Your task to perform on an android device: install app "Life360: Find Family & Friends" Image 0: 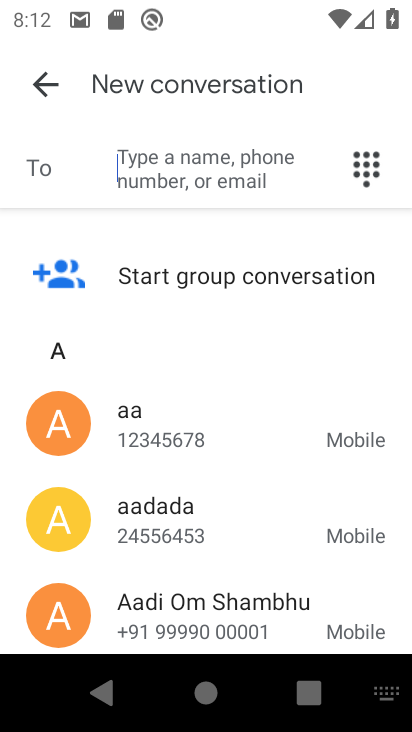
Step 0: press home button
Your task to perform on an android device: install app "Life360: Find Family & Friends" Image 1: 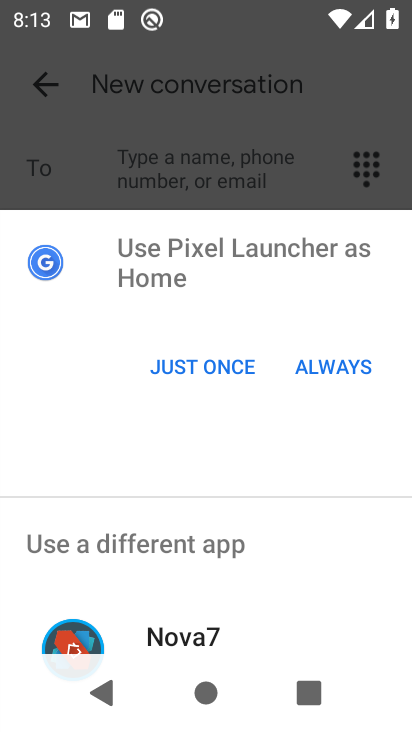
Step 1: click (325, 365)
Your task to perform on an android device: install app "Life360: Find Family & Friends" Image 2: 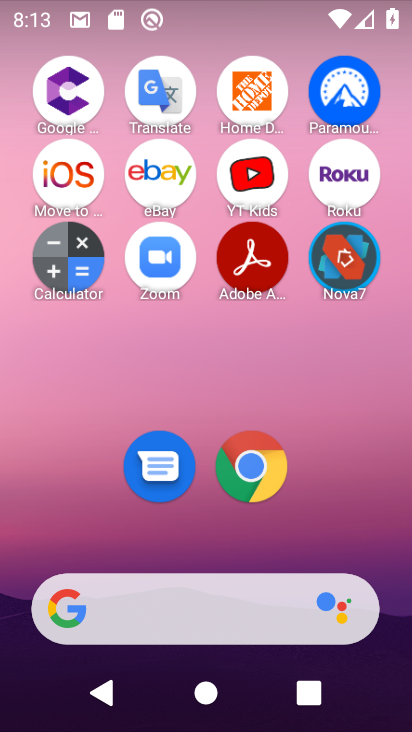
Step 2: drag from (219, 573) to (294, 0)
Your task to perform on an android device: install app "Life360: Find Family & Friends" Image 3: 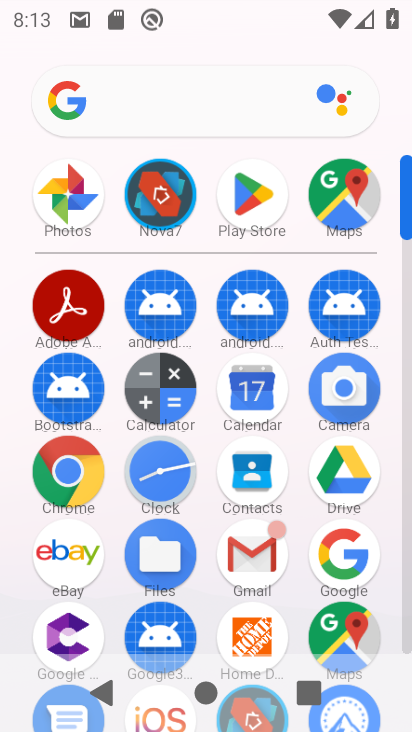
Step 3: click (254, 193)
Your task to perform on an android device: install app "Life360: Find Family & Friends" Image 4: 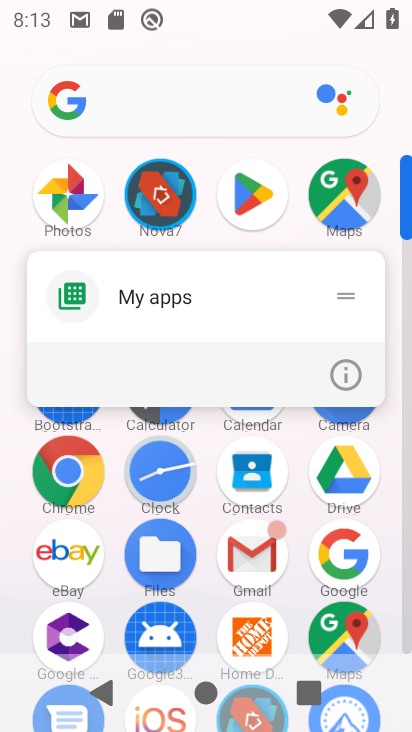
Step 4: click (240, 212)
Your task to perform on an android device: install app "Life360: Find Family & Friends" Image 5: 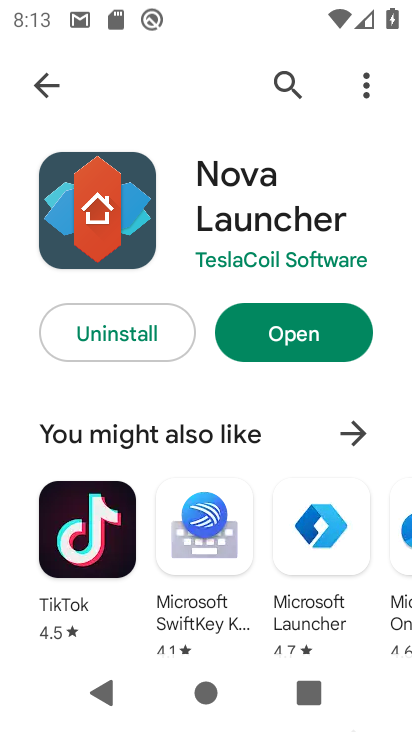
Step 5: click (38, 69)
Your task to perform on an android device: install app "Life360: Find Family & Friends" Image 6: 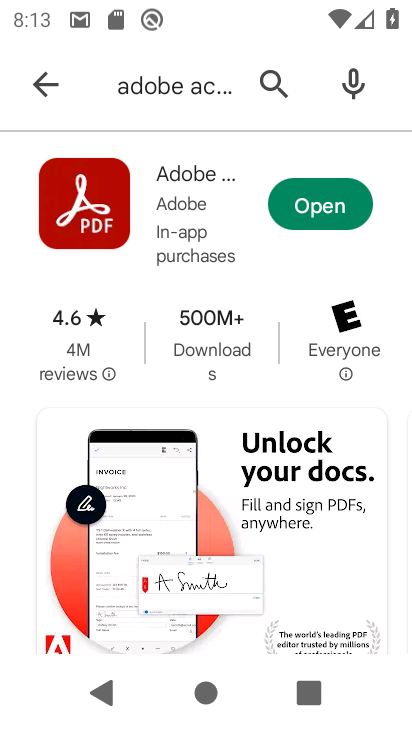
Step 6: click (146, 90)
Your task to perform on an android device: install app "Life360: Find Family & Friends" Image 7: 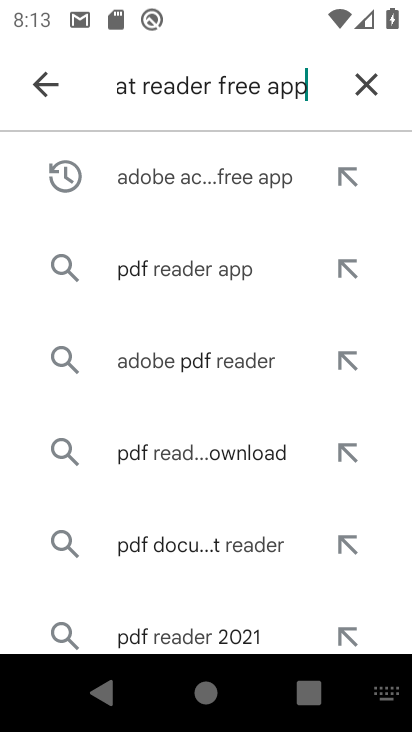
Step 7: click (362, 81)
Your task to perform on an android device: install app "Life360: Find Family & Friends" Image 8: 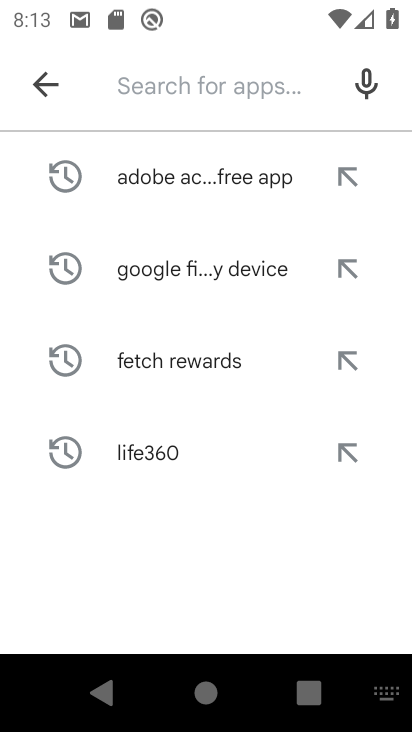
Step 8: type "life360"
Your task to perform on an android device: install app "Life360: Find Family & Friends" Image 9: 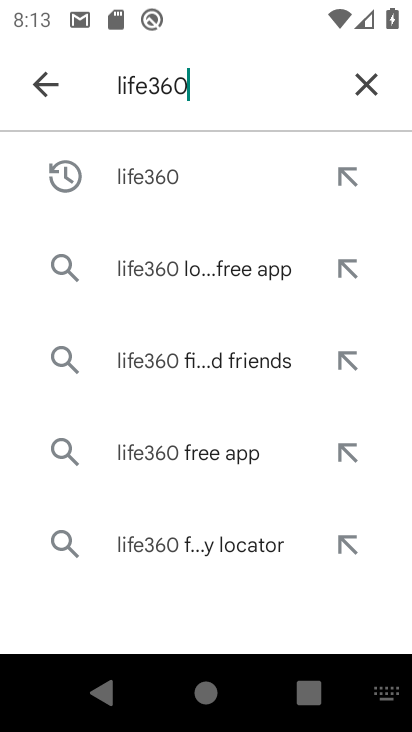
Step 9: click (182, 175)
Your task to perform on an android device: install app "Life360: Find Family & Friends" Image 10: 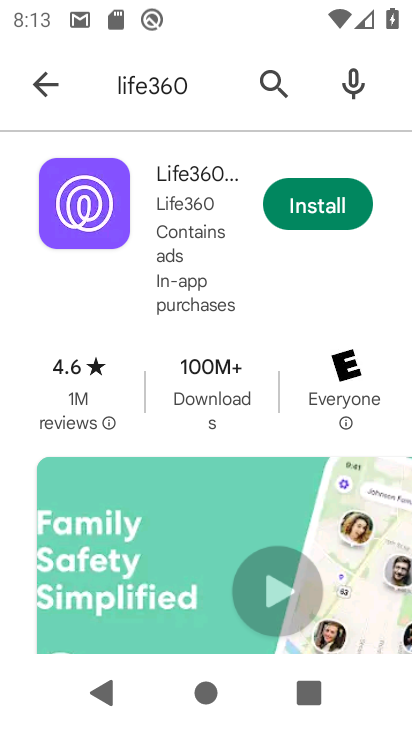
Step 10: click (307, 204)
Your task to perform on an android device: install app "Life360: Find Family & Friends" Image 11: 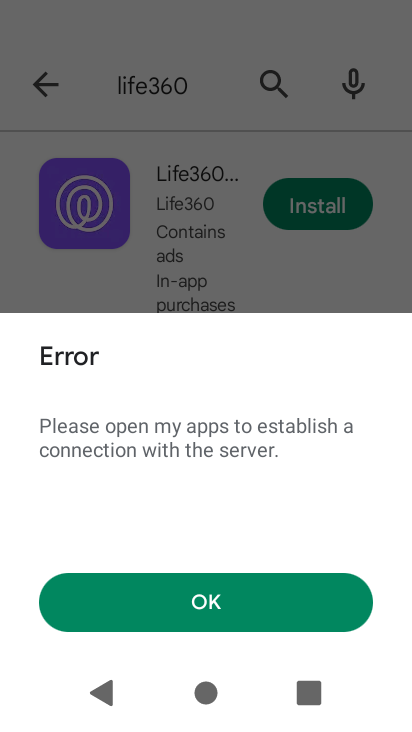
Step 11: click (240, 602)
Your task to perform on an android device: install app "Life360: Find Family & Friends" Image 12: 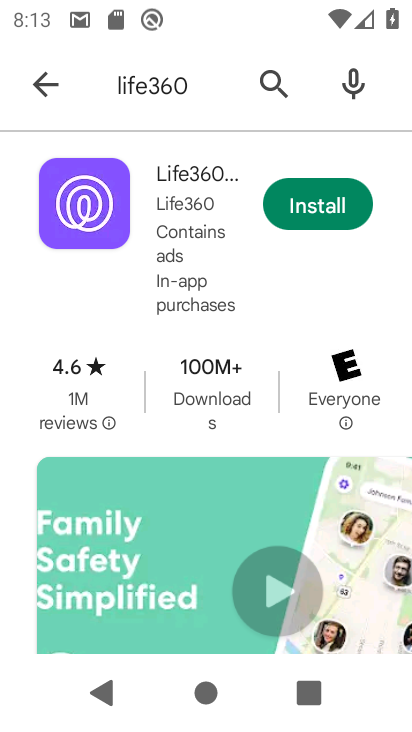
Step 12: click (96, 204)
Your task to perform on an android device: install app "Life360: Find Family & Friends" Image 13: 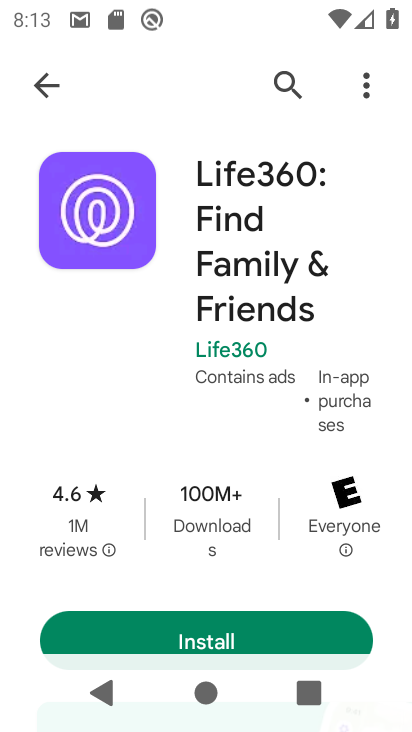
Step 13: click (245, 618)
Your task to perform on an android device: install app "Life360: Find Family & Friends" Image 14: 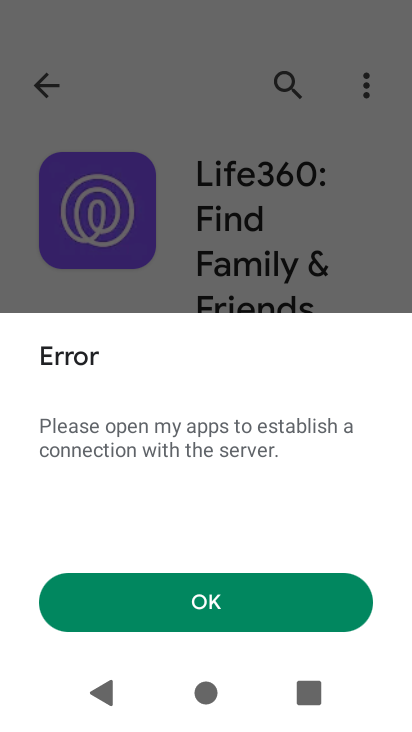
Step 14: click (244, 604)
Your task to perform on an android device: install app "Life360: Find Family & Friends" Image 15: 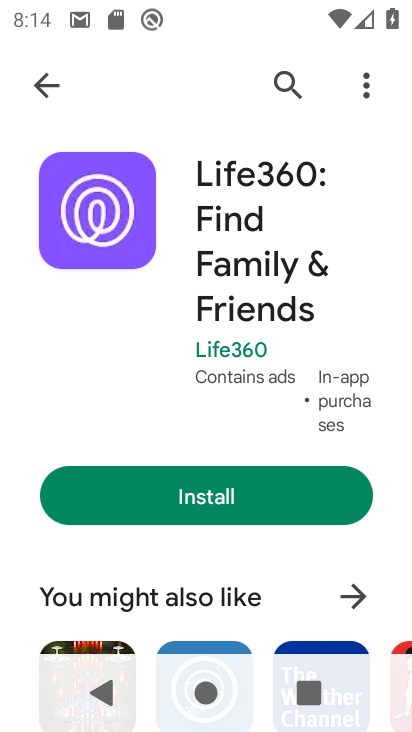
Step 15: task complete